Your task to perform on an android device: change keyboard looks Image 0: 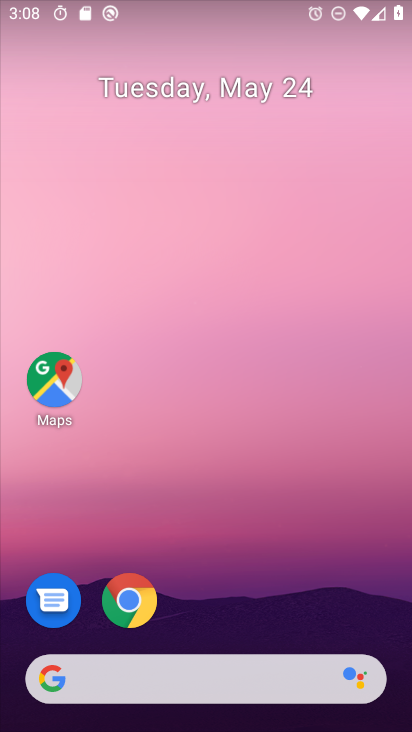
Step 0: drag from (264, 582) to (302, 70)
Your task to perform on an android device: change keyboard looks Image 1: 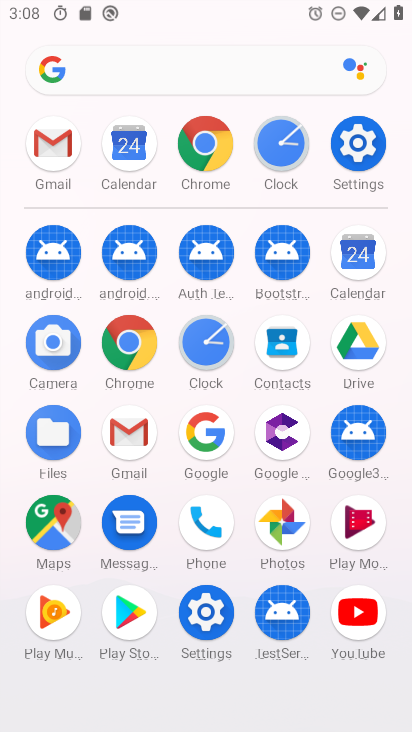
Step 1: click (358, 152)
Your task to perform on an android device: change keyboard looks Image 2: 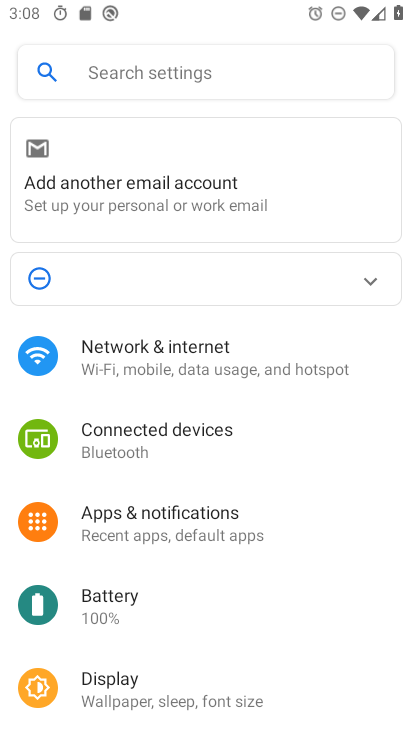
Step 2: drag from (191, 579) to (343, 97)
Your task to perform on an android device: change keyboard looks Image 3: 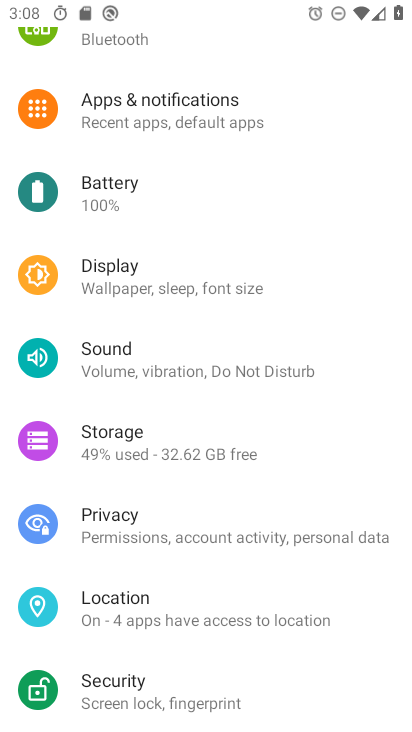
Step 3: drag from (139, 603) to (300, 88)
Your task to perform on an android device: change keyboard looks Image 4: 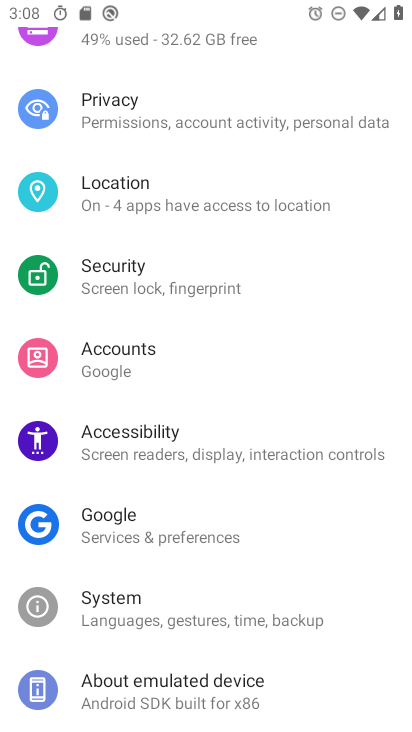
Step 4: click (117, 619)
Your task to perform on an android device: change keyboard looks Image 5: 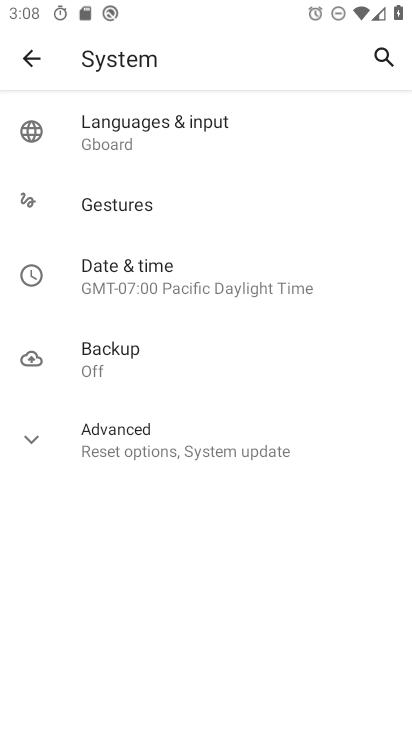
Step 5: click (119, 134)
Your task to perform on an android device: change keyboard looks Image 6: 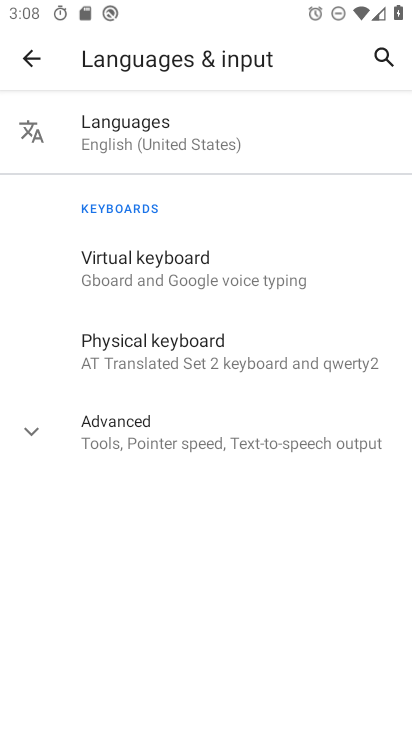
Step 6: click (146, 275)
Your task to perform on an android device: change keyboard looks Image 7: 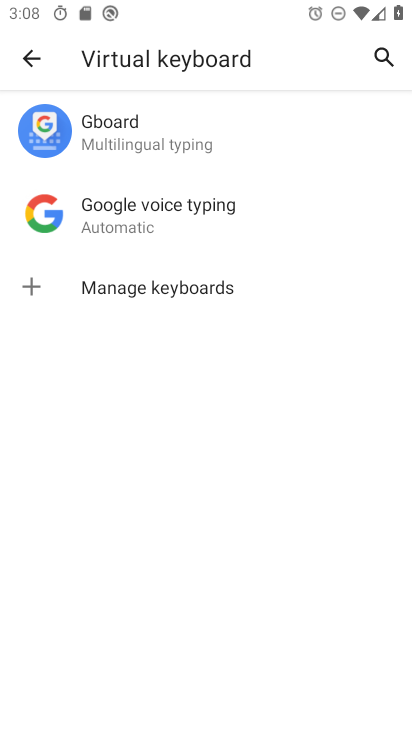
Step 7: click (205, 148)
Your task to perform on an android device: change keyboard looks Image 8: 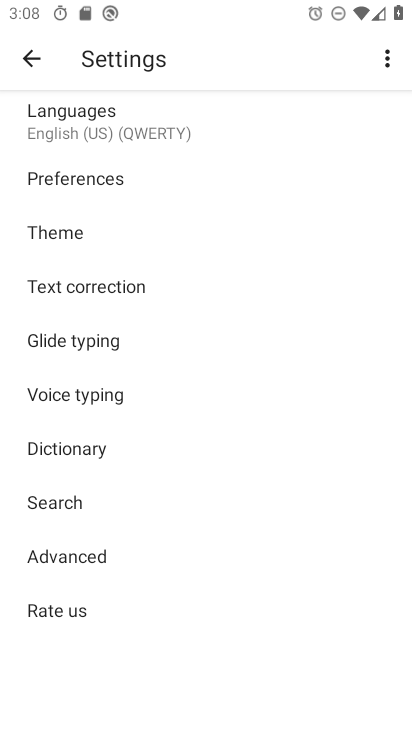
Step 8: click (75, 223)
Your task to perform on an android device: change keyboard looks Image 9: 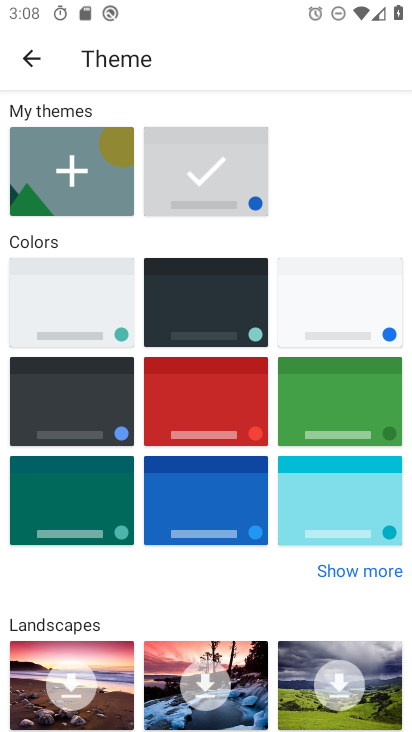
Step 9: click (68, 315)
Your task to perform on an android device: change keyboard looks Image 10: 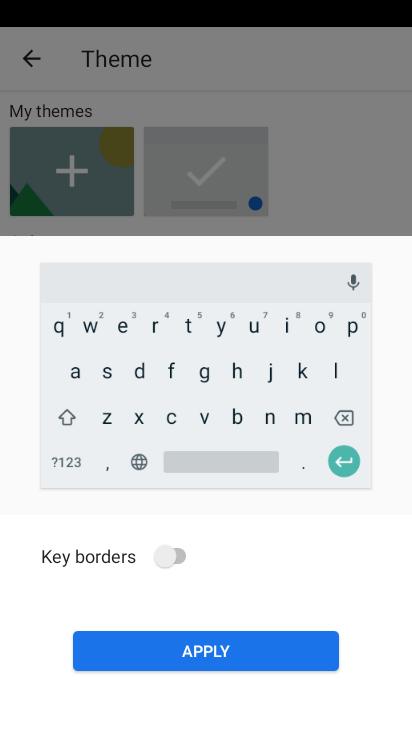
Step 10: click (144, 647)
Your task to perform on an android device: change keyboard looks Image 11: 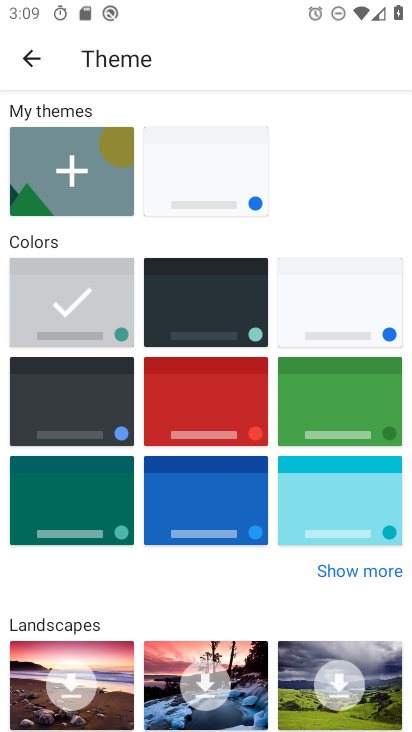
Step 11: task complete